Your task to perform on an android device: Open Google Chrome and open the bookmarks view Image 0: 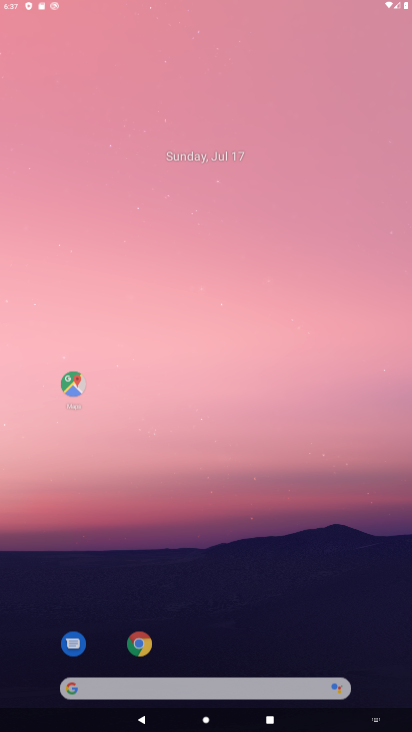
Step 0: click (192, 682)
Your task to perform on an android device: Open Google Chrome and open the bookmarks view Image 1: 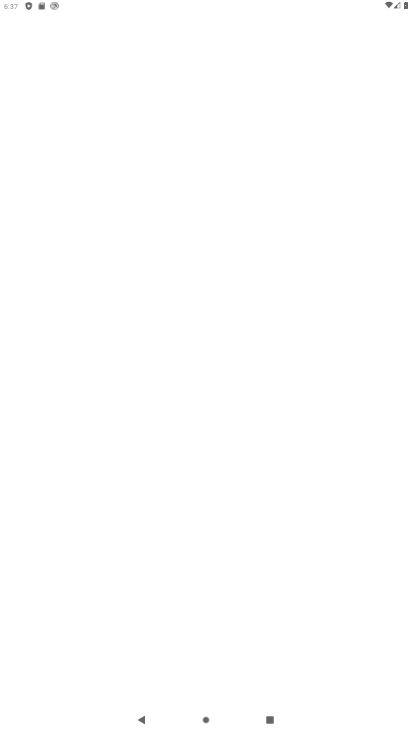
Step 1: click (161, 690)
Your task to perform on an android device: Open Google Chrome and open the bookmarks view Image 2: 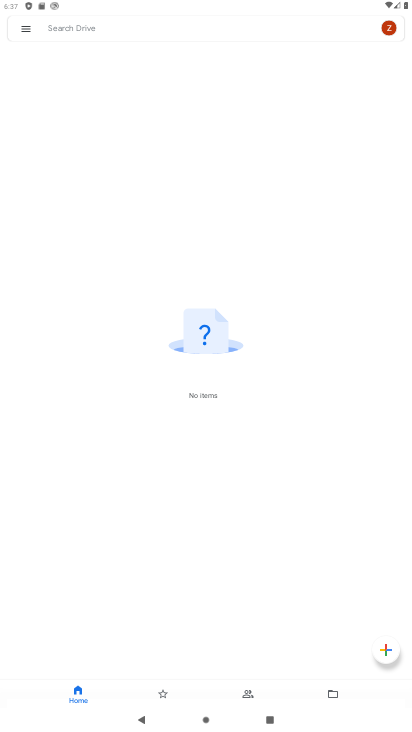
Step 2: press home button
Your task to perform on an android device: Open Google Chrome and open the bookmarks view Image 3: 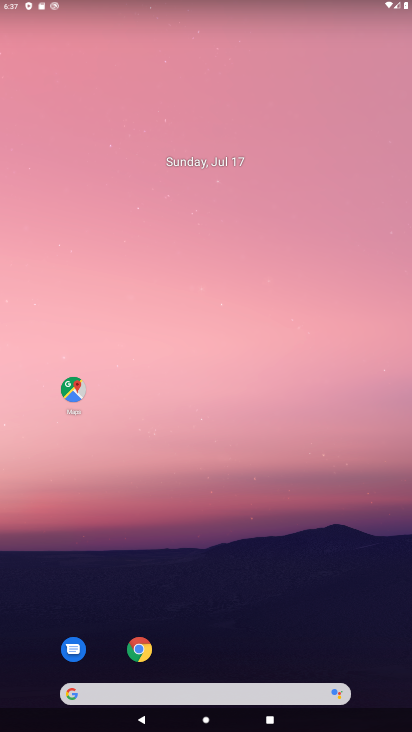
Step 3: click (132, 650)
Your task to perform on an android device: Open Google Chrome and open the bookmarks view Image 4: 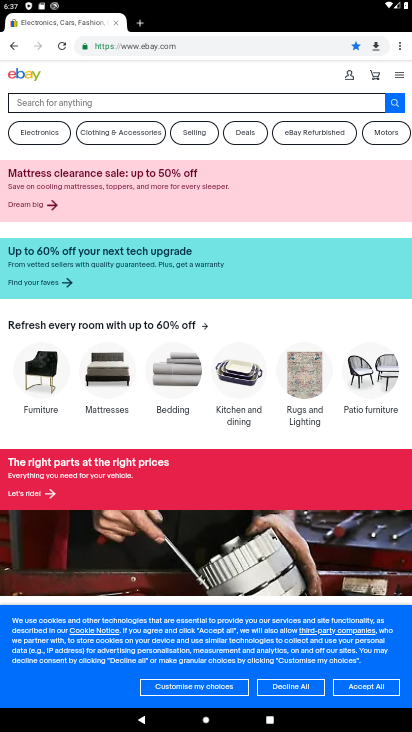
Step 4: click (400, 45)
Your task to perform on an android device: Open Google Chrome and open the bookmarks view Image 5: 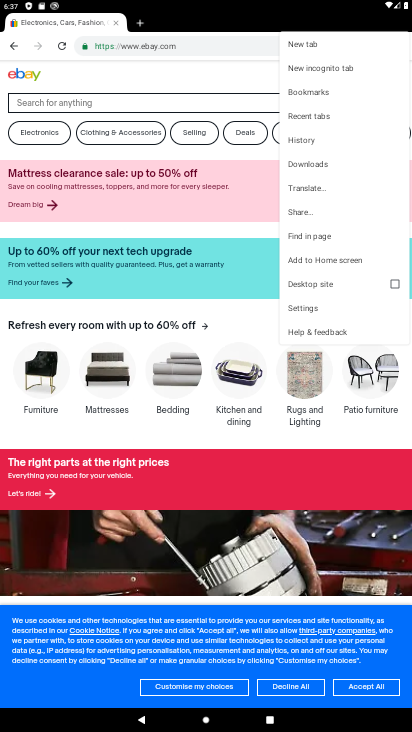
Step 5: click (298, 94)
Your task to perform on an android device: Open Google Chrome and open the bookmarks view Image 6: 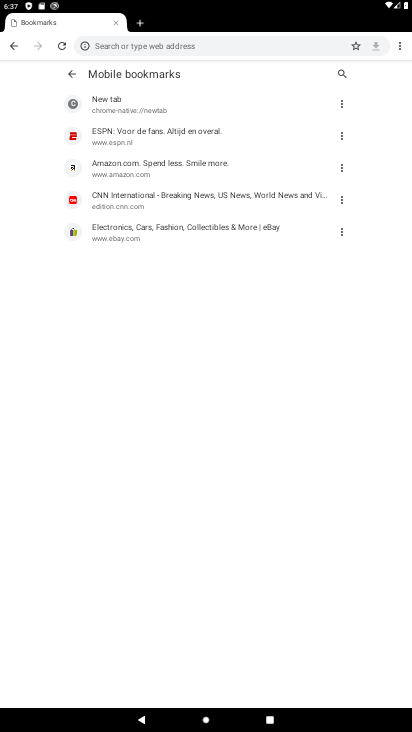
Step 6: click (337, 105)
Your task to perform on an android device: Open Google Chrome and open the bookmarks view Image 7: 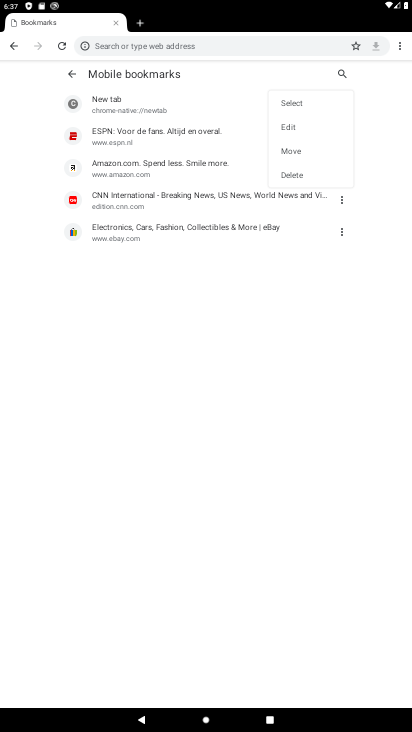
Step 7: click (291, 124)
Your task to perform on an android device: Open Google Chrome and open the bookmarks view Image 8: 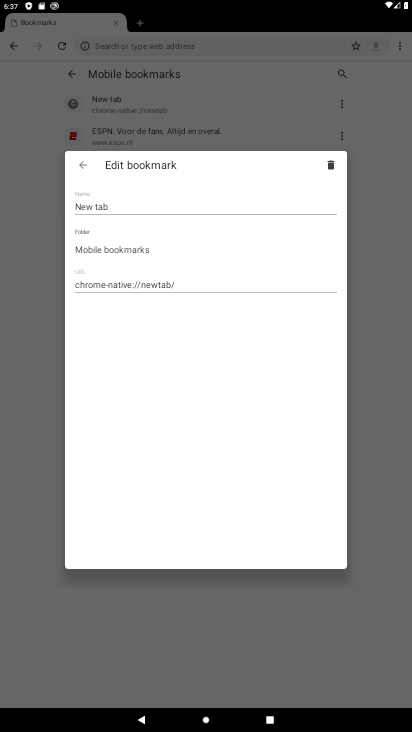
Step 8: task complete